Your task to perform on an android device: Go to location settings Image 0: 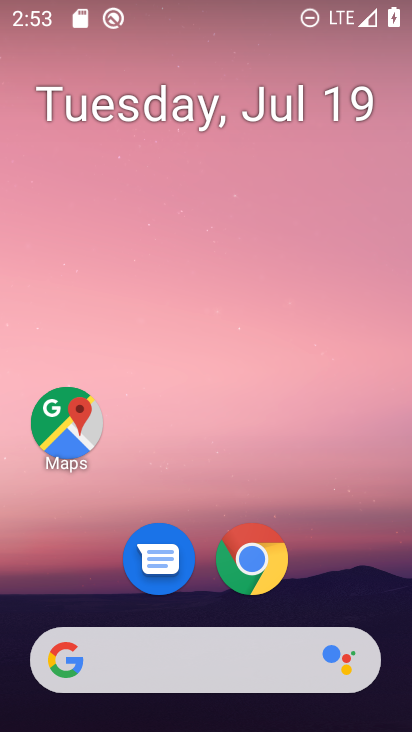
Step 0: drag from (224, 626) to (285, 5)
Your task to perform on an android device: Go to location settings Image 1: 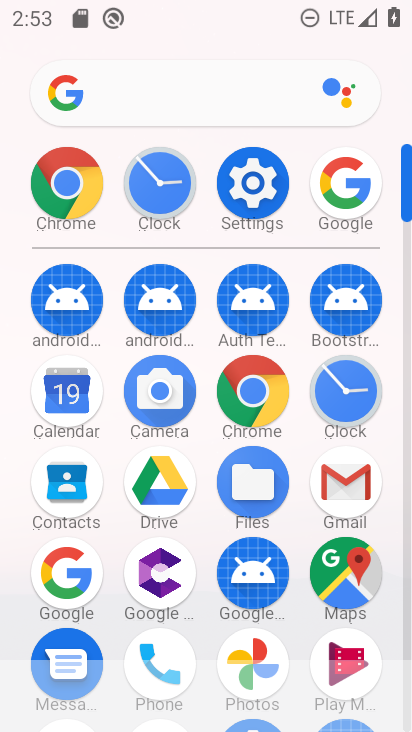
Step 1: click (268, 187)
Your task to perform on an android device: Go to location settings Image 2: 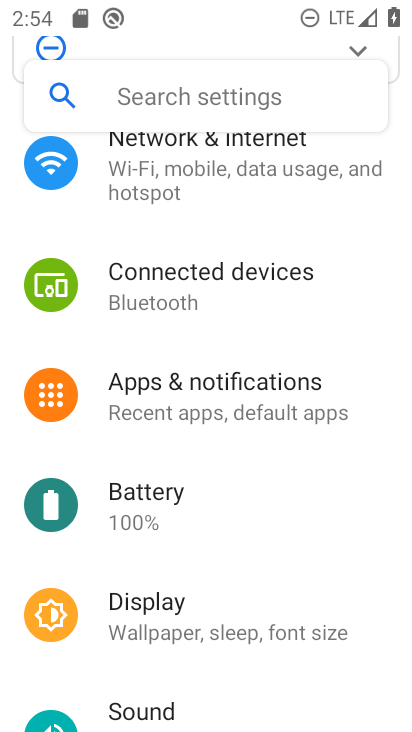
Step 2: drag from (193, 540) to (223, 122)
Your task to perform on an android device: Go to location settings Image 3: 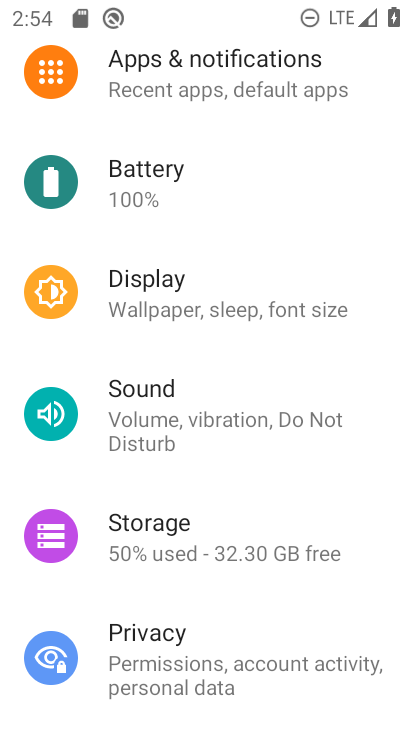
Step 3: drag from (262, 562) to (292, 77)
Your task to perform on an android device: Go to location settings Image 4: 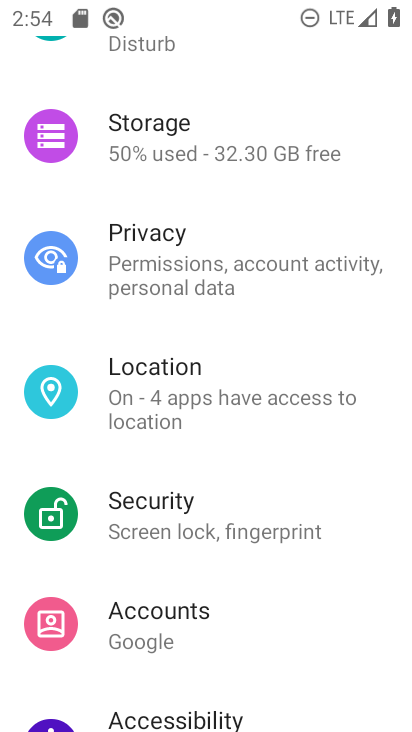
Step 4: click (293, 390)
Your task to perform on an android device: Go to location settings Image 5: 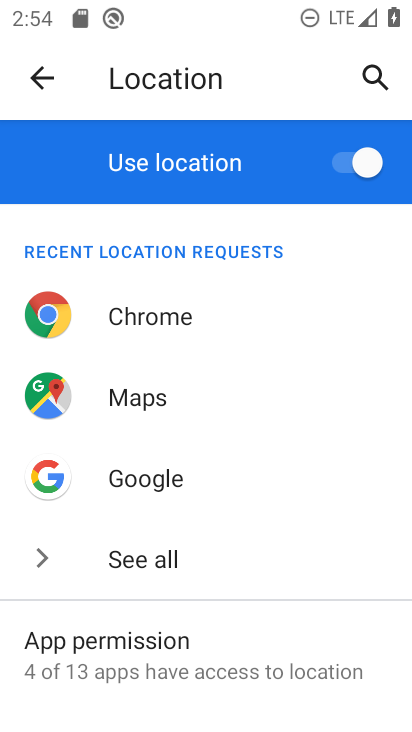
Step 5: task complete